Your task to perform on an android device: open app "Pinterest" Image 0: 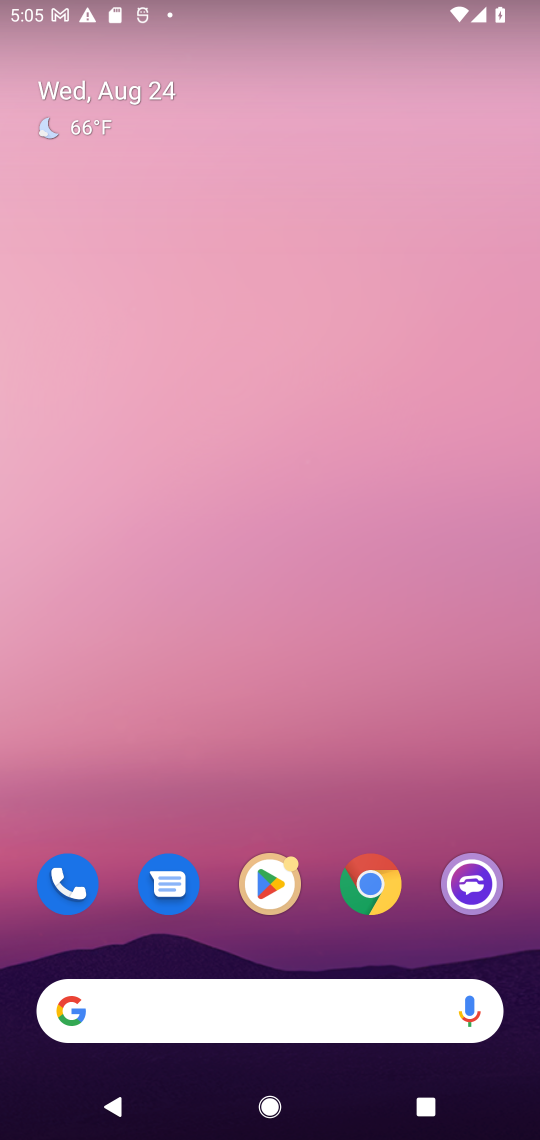
Step 0: click (264, 873)
Your task to perform on an android device: open app "Pinterest" Image 1: 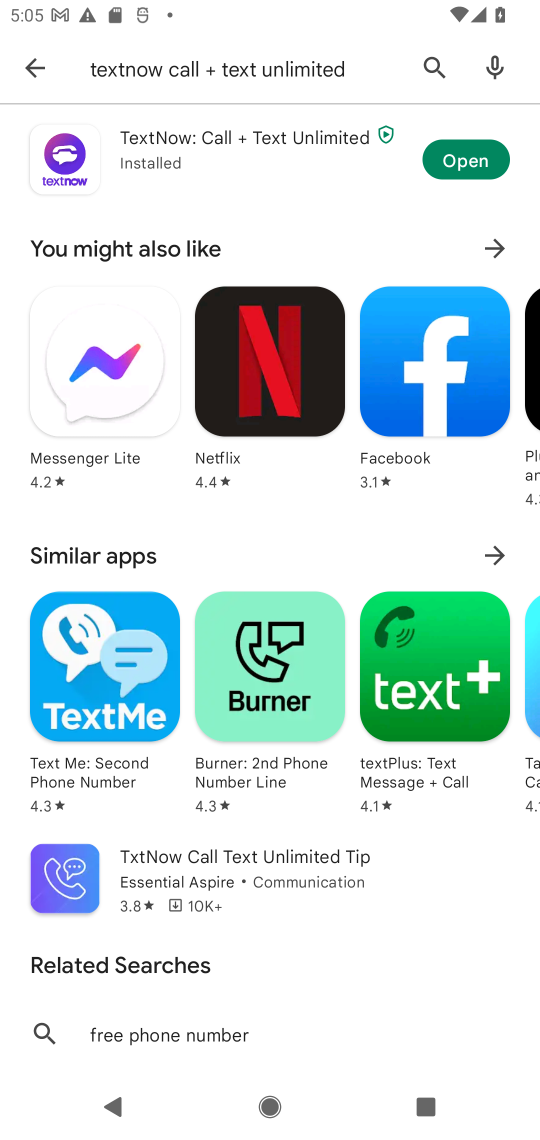
Step 1: click (30, 68)
Your task to perform on an android device: open app "Pinterest" Image 2: 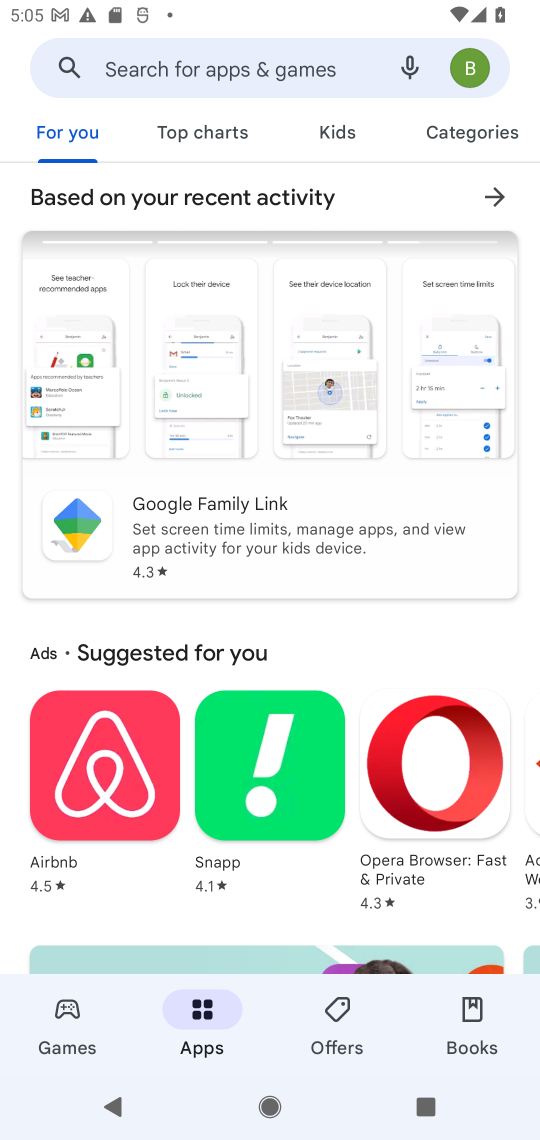
Step 2: click (210, 68)
Your task to perform on an android device: open app "Pinterest" Image 3: 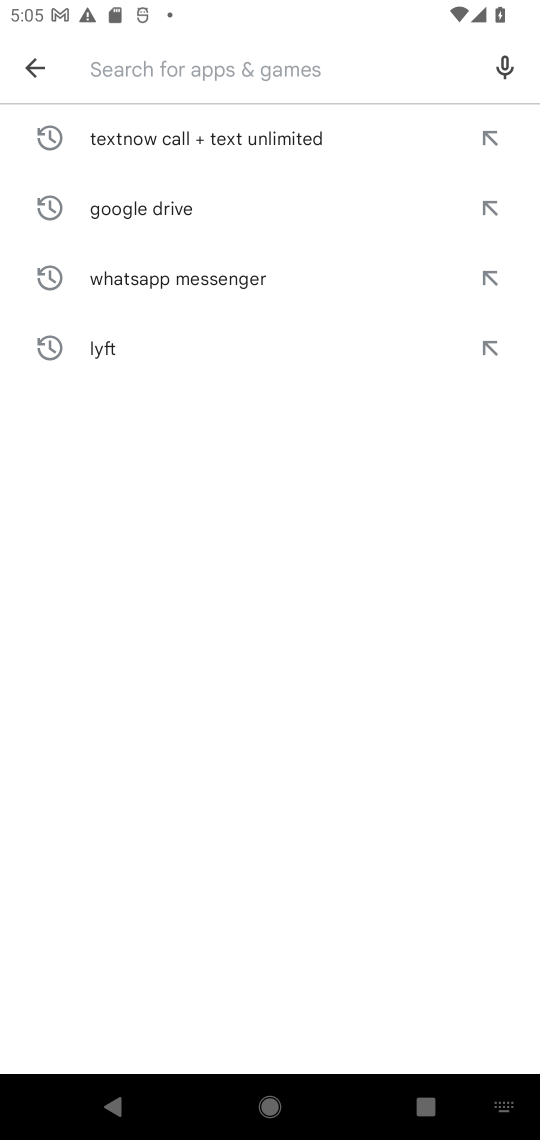
Step 3: type "Pinterest"
Your task to perform on an android device: open app "Pinterest" Image 4: 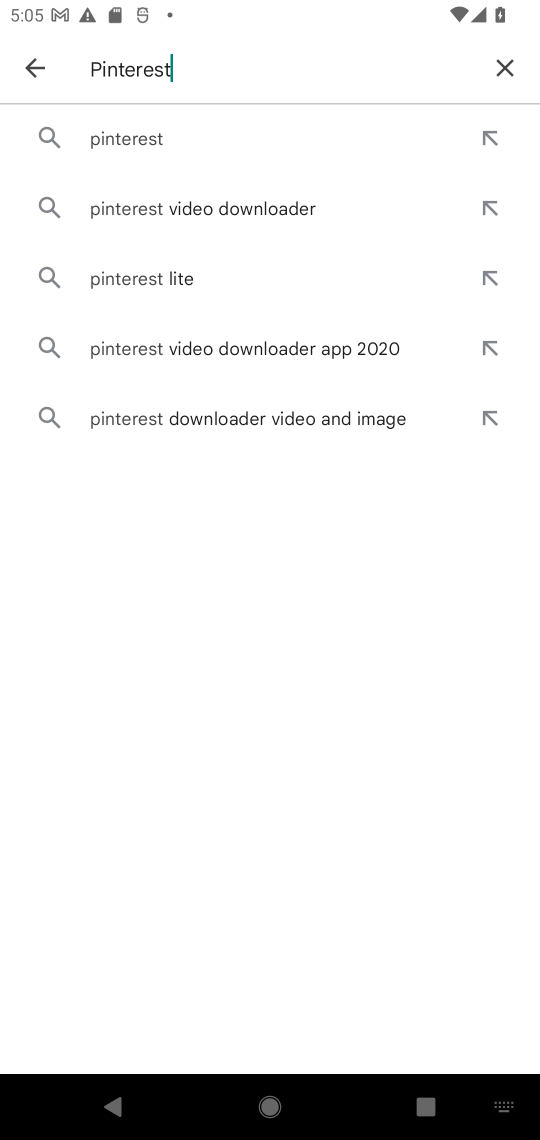
Step 4: click (152, 153)
Your task to perform on an android device: open app "Pinterest" Image 5: 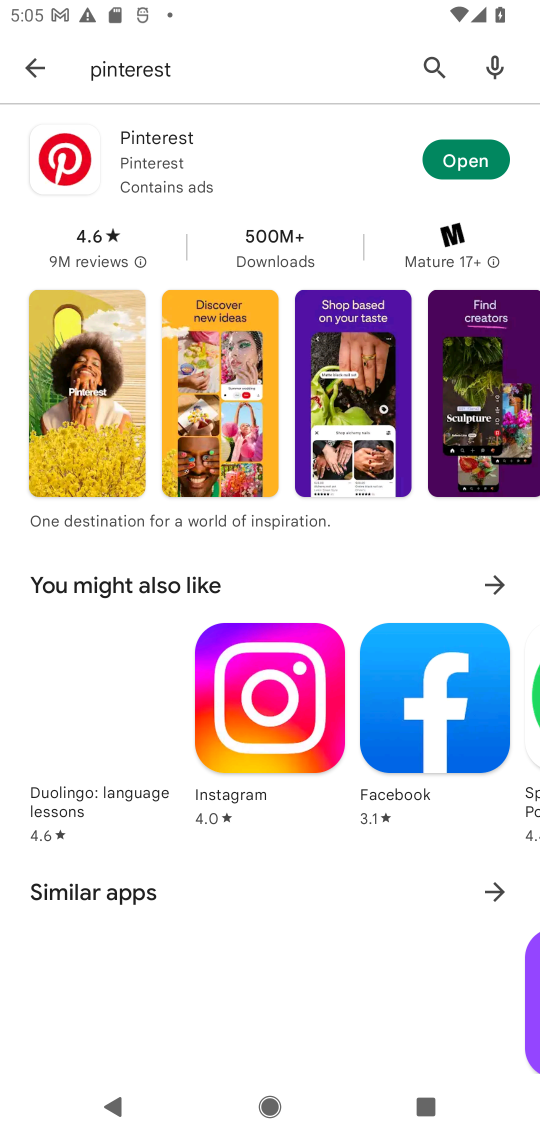
Step 5: click (449, 158)
Your task to perform on an android device: open app "Pinterest" Image 6: 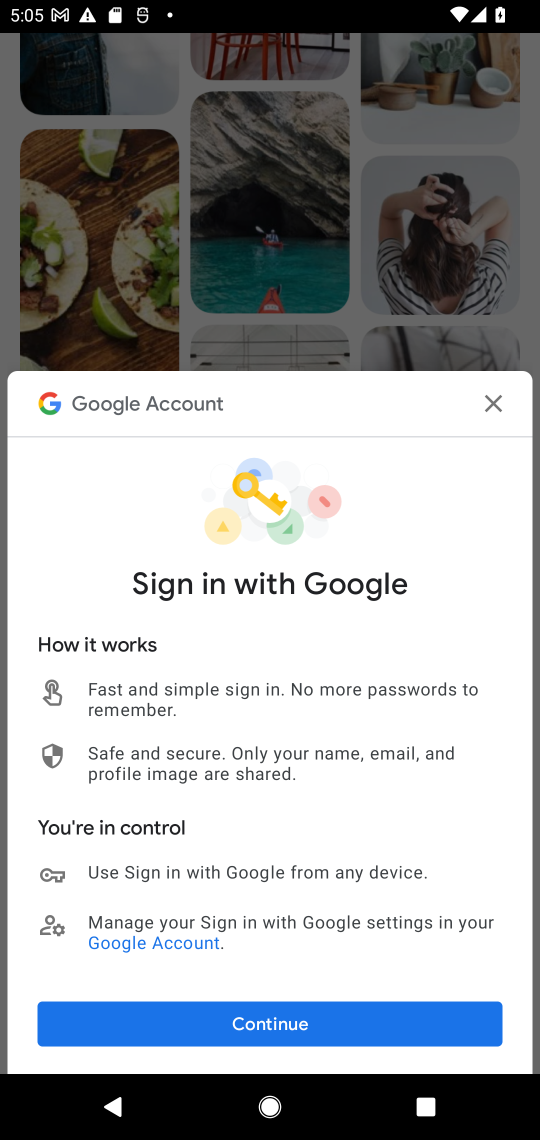
Step 6: task complete